Your task to perform on an android device: change the upload size in google photos Image 0: 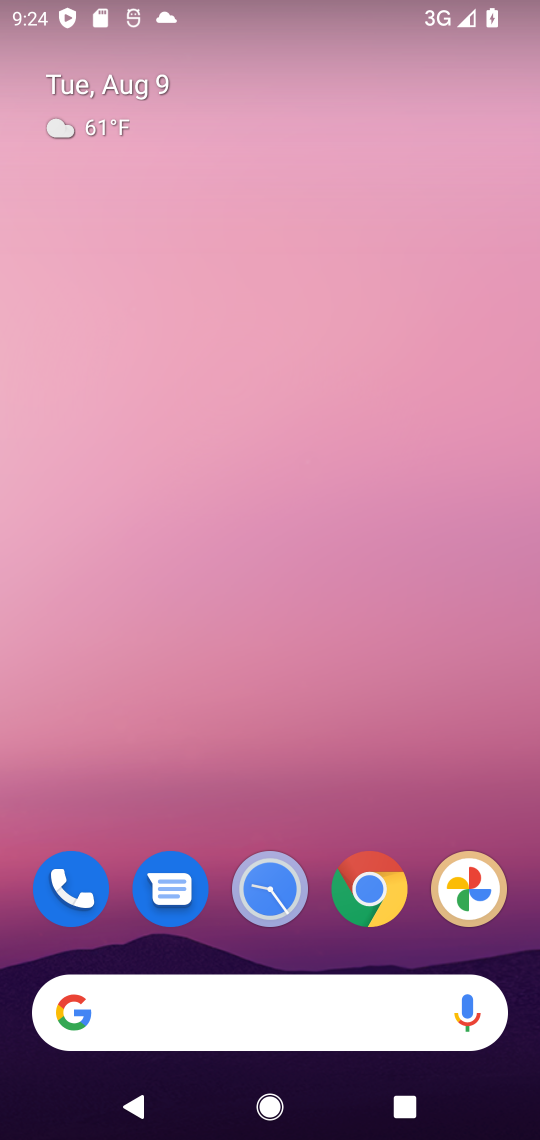
Step 0: drag from (251, 835) to (261, 40)
Your task to perform on an android device: change the upload size in google photos Image 1: 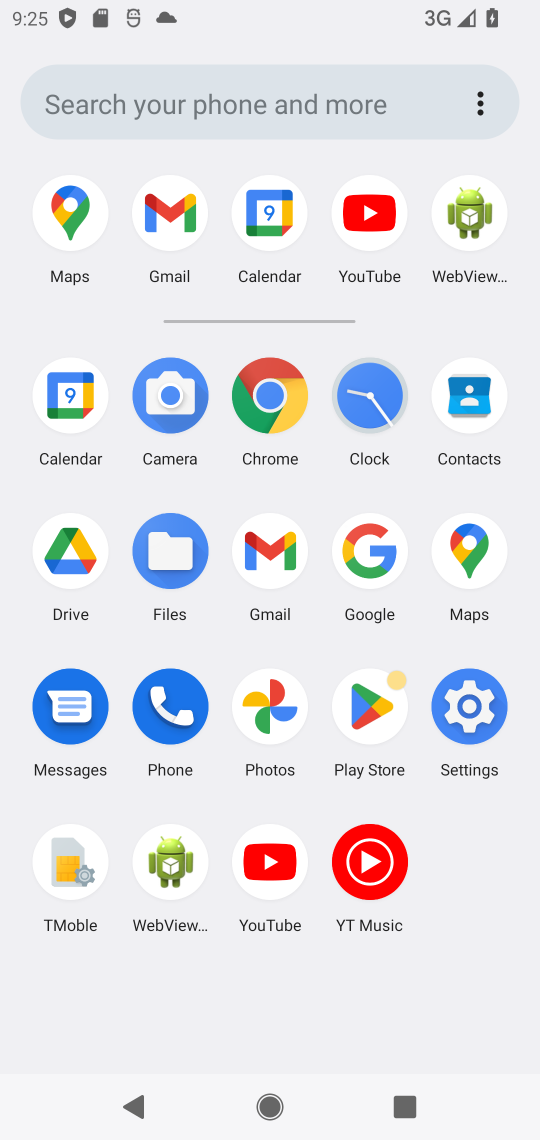
Step 1: click (284, 707)
Your task to perform on an android device: change the upload size in google photos Image 2: 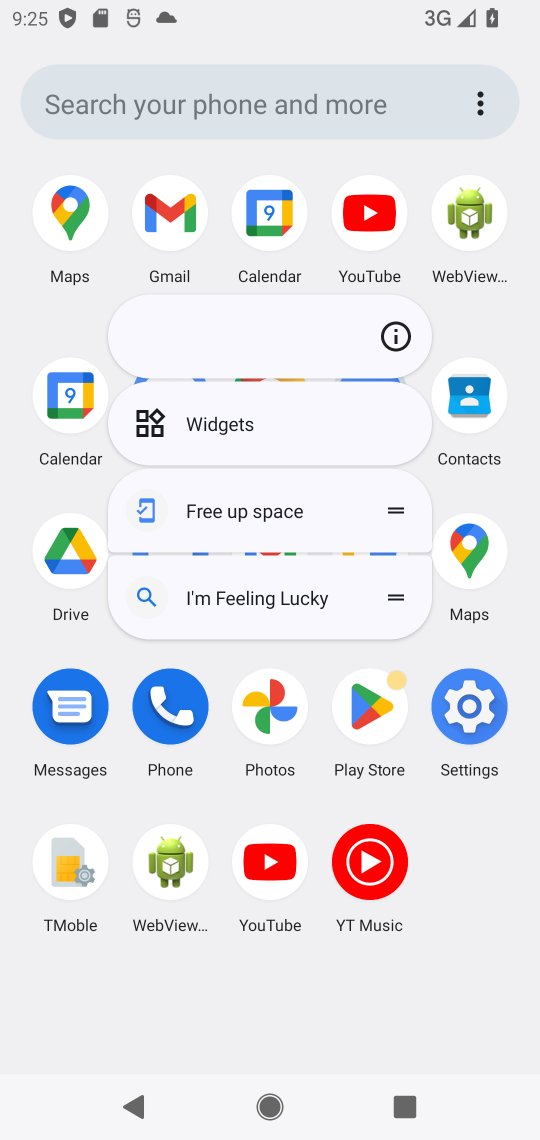
Step 2: click (262, 708)
Your task to perform on an android device: change the upload size in google photos Image 3: 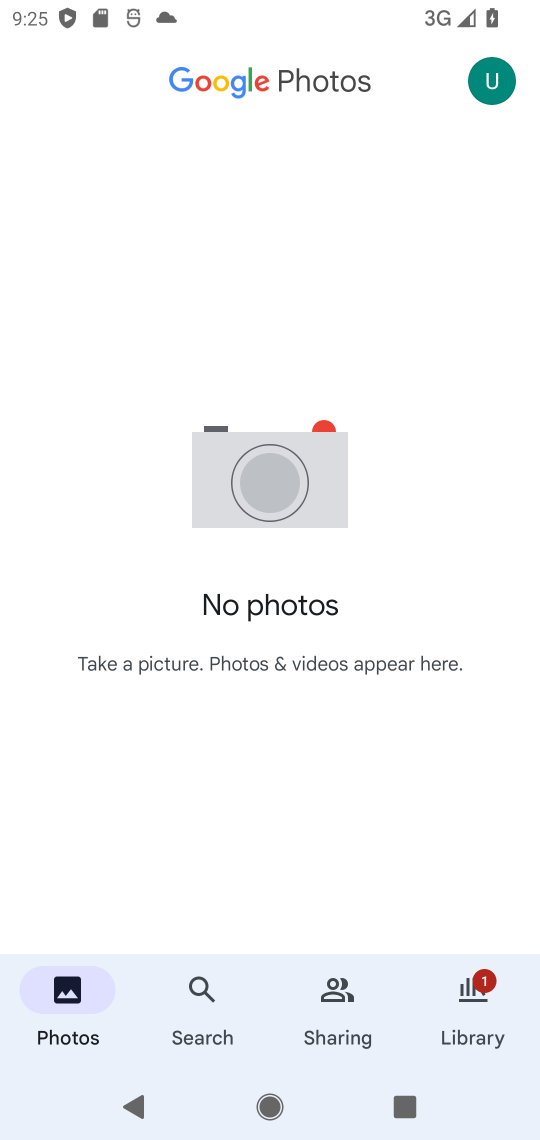
Step 3: click (494, 71)
Your task to perform on an android device: change the upload size in google photos Image 4: 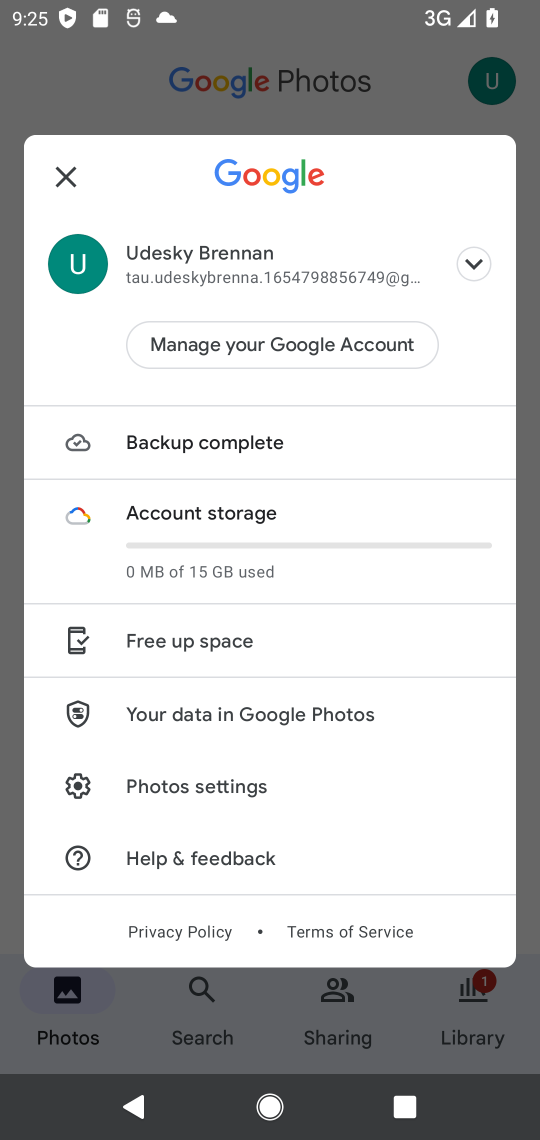
Step 4: click (245, 793)
Your task to perform on an android device: change the upload size in google photos Image 5: 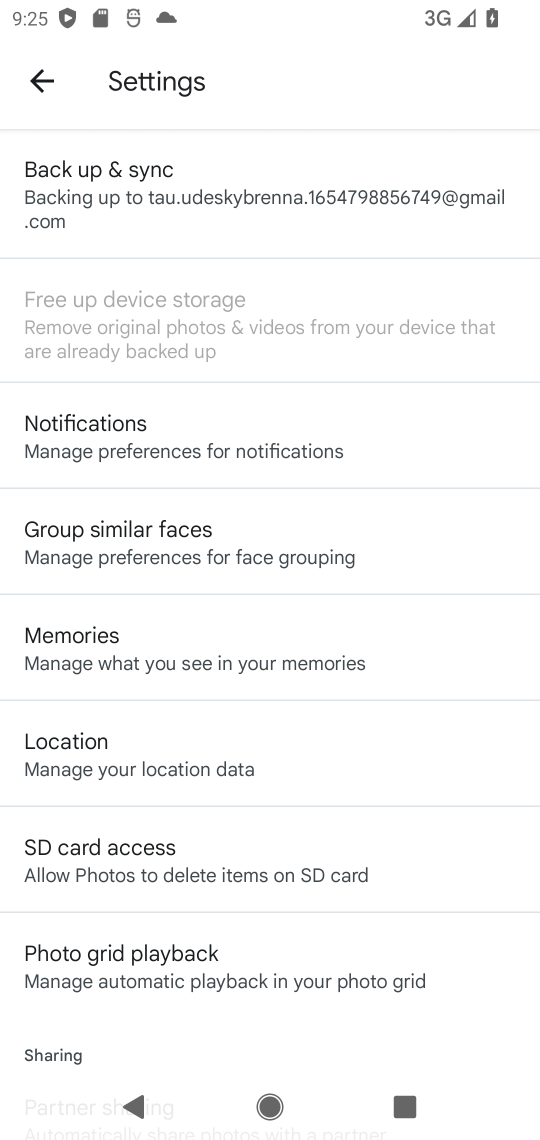
Step 5: click (130, 212)
Your task to perform on an android device: change the upload size in google photos Image 6: 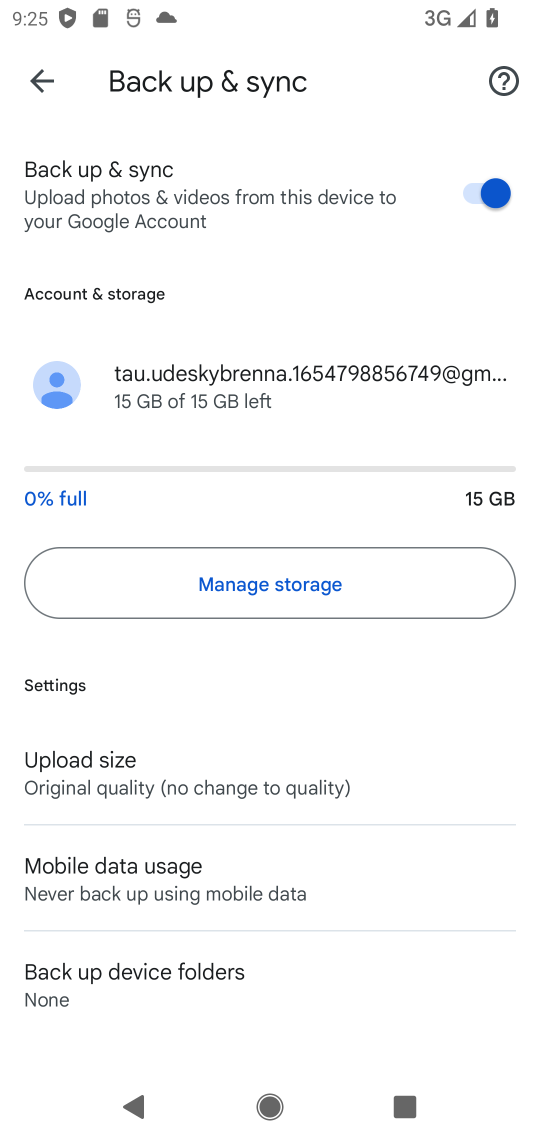
Step 6: click (138, 819)
Your task to perform on an android device: change the upload size in google photos Image 7: 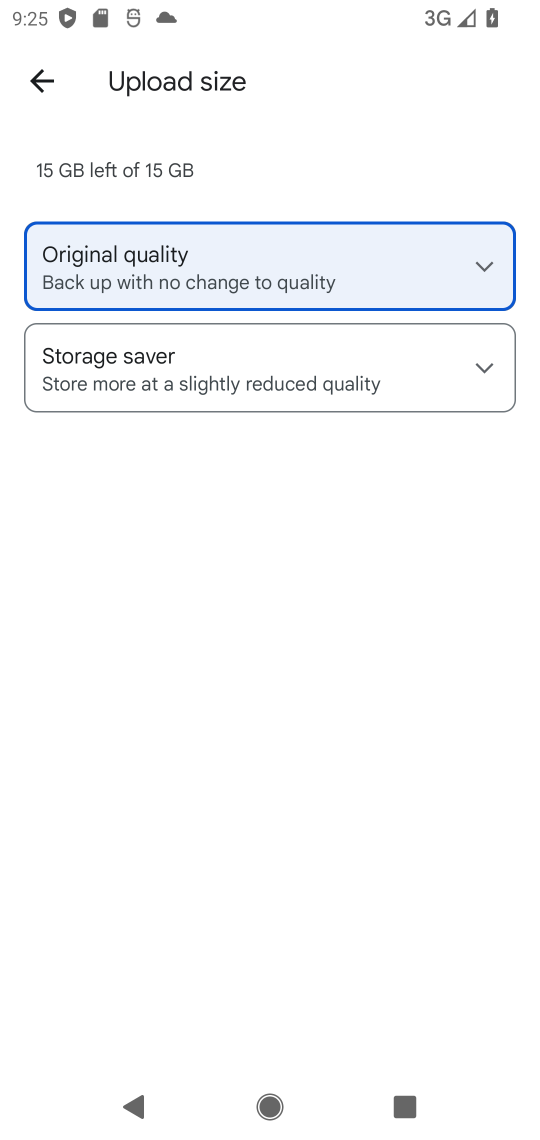
Step 7: click (220, 379)
Your task to perform on an android device: change the upload size in google photos Image 8: 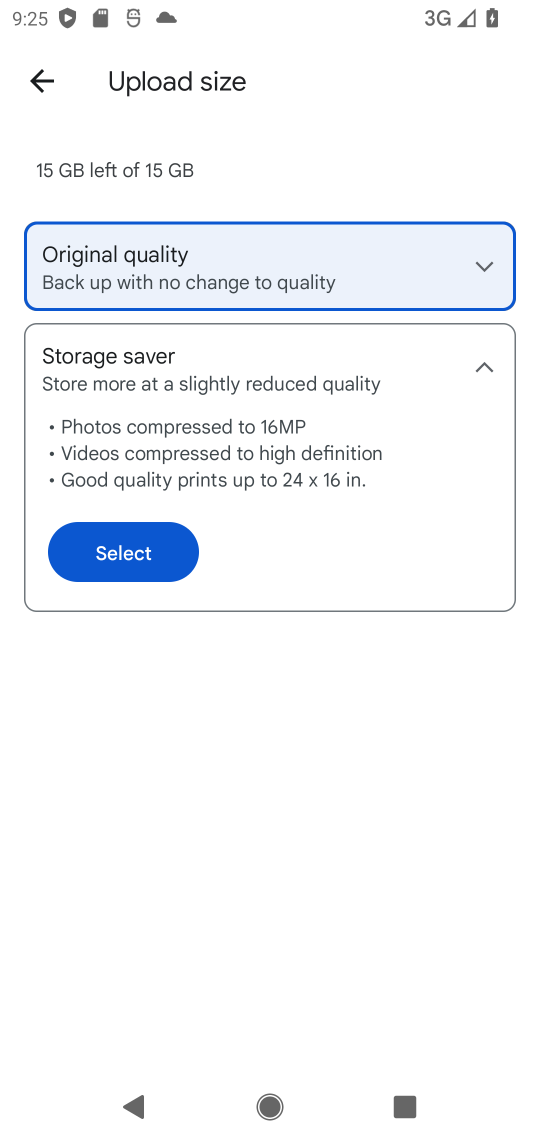
Step 8: task complete